Your task to perform on an android device: Open the phone app and click the voicemail tab. Image 0: 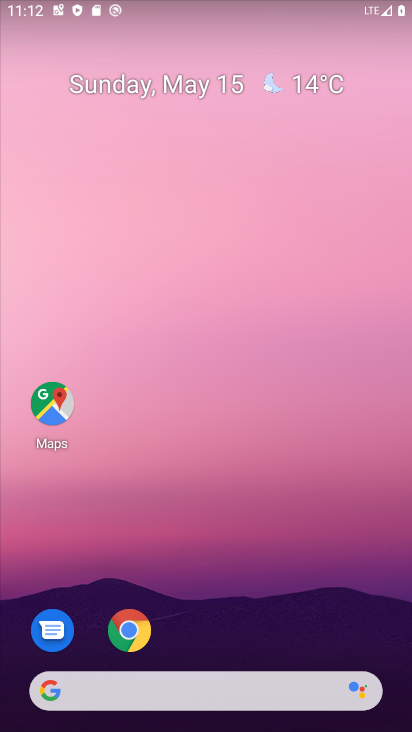
Step 0: press home button
Your task to perform on an android device: Open the phone app and click the voicemail tab. Image 1: 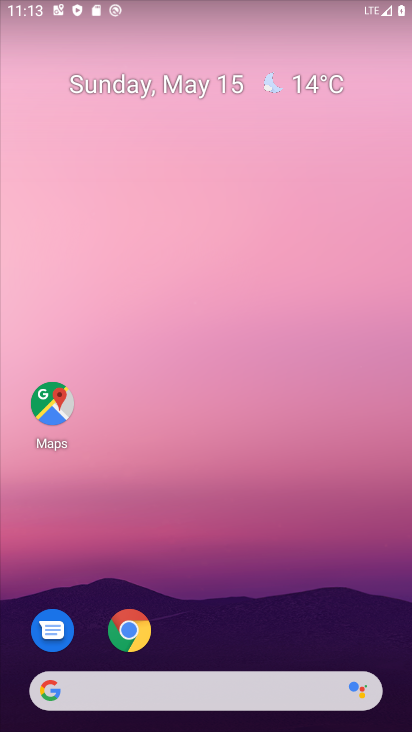
Step 1: drag from (57, 531) to (390, 58)
Your task to perform on an android device: Open the phone app and click the voicemail tab. Image 2: 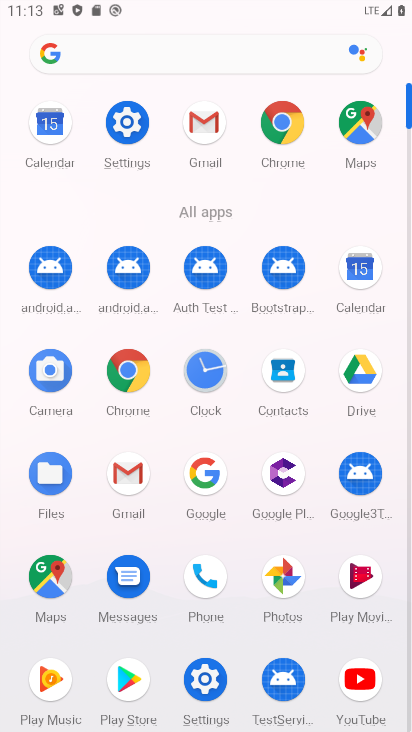
Step 2: click (187, 578)
Your task to perform on an android device: Open the phone app and click the voicemail tab. Image 3: 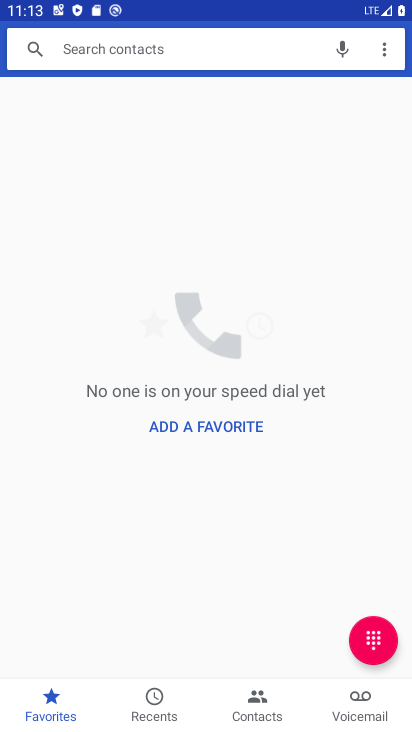
Step 3: click (378, 697)
Your task to perform on an android device: Open the phone app and click the voicemail tab. Image 4: 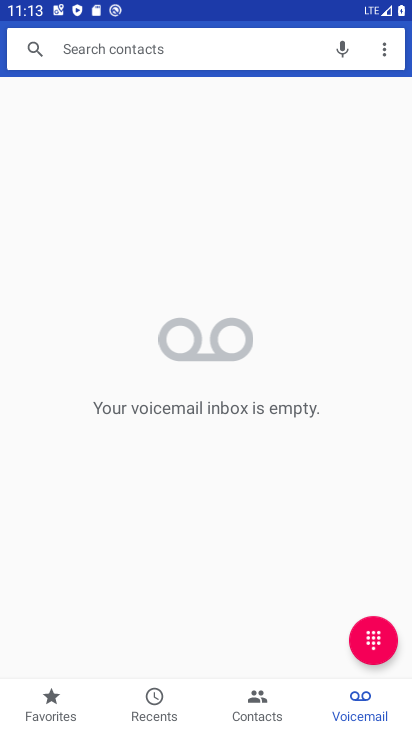
Step 4: task complete